Your task to perform on an android device: Open Chrome and go to settings Image 0: 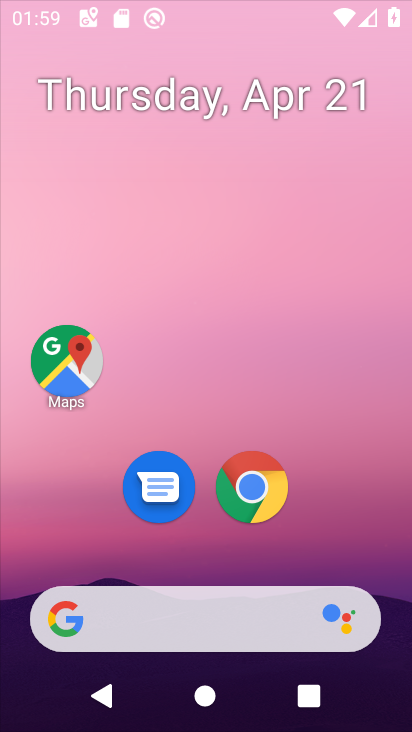
Step 0: drag from (205, 539) to (221, 56)
Your task to perform on an android device: Open Chrome and go to settings Image 1: 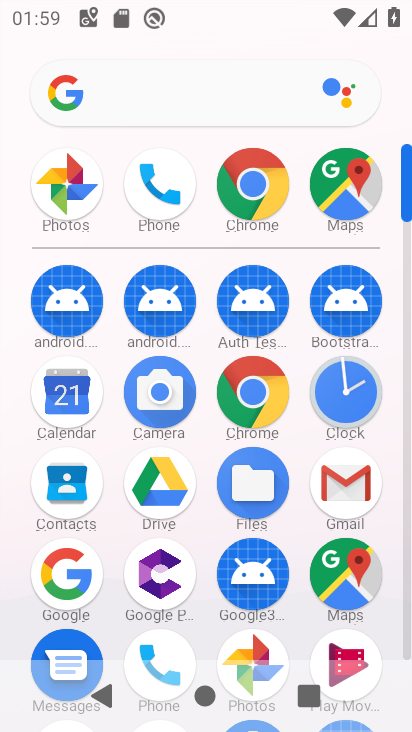
Step 1: click (255, 382)
Your task to perform on an android device: Open Chrome and go to settings Image 2: 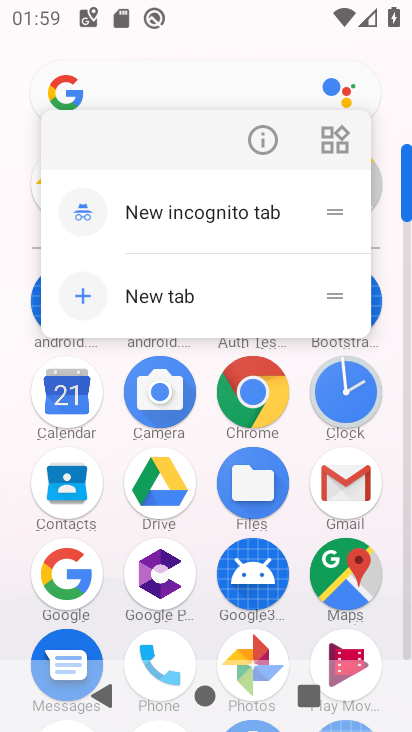
Step 2: click (256, 144)
Your task to perform on an android device: Open Chrome and go to settings Image 3: 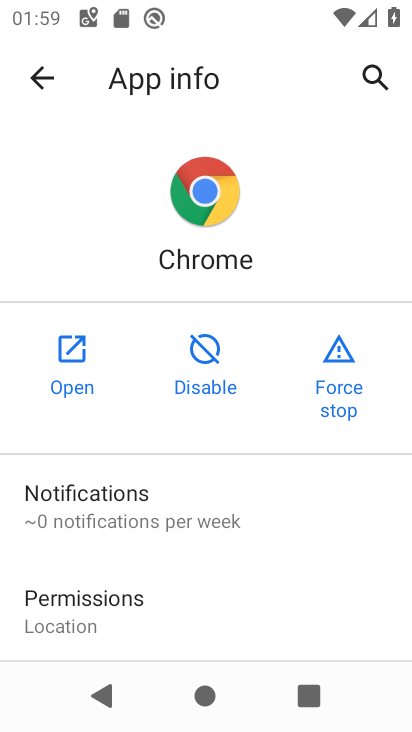
Step 3: click (72, 352)
Your task to perform on an android device: Open Chrome and go to settings Image 4: 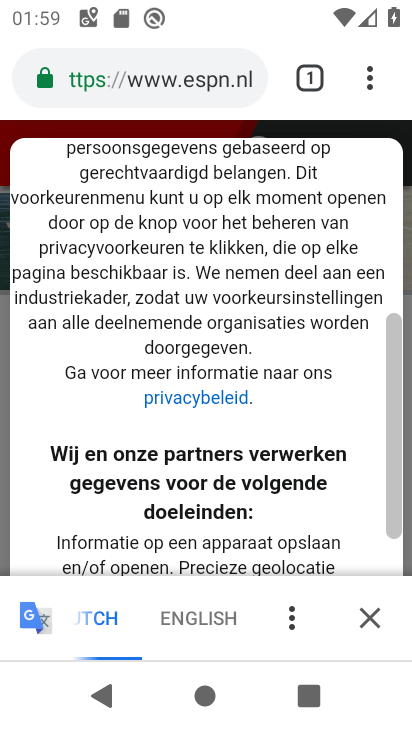
Step 4: task complete